Your task to perform on an android device: Open Youtube and go to "Your channel" Image 0: 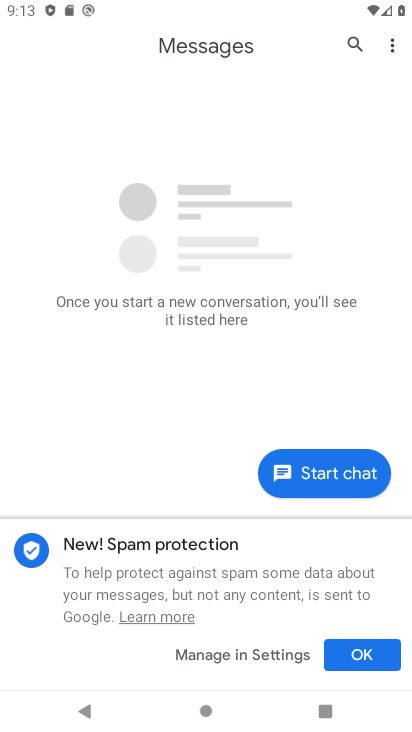
Step 0: press home button
Your task to perform on an android device: Open Youtube and go to "Your channel" Image 1: 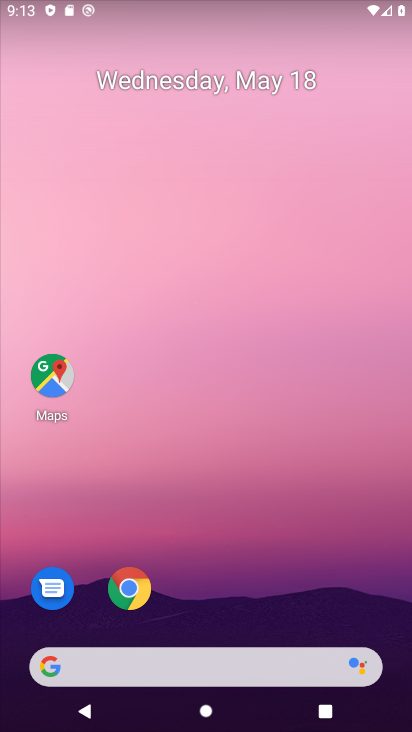
Step 1: drag from (230, 694) to (375, 287)
Your task to perform on an android device: Open Youtube and go to "Your channel" Image 2: 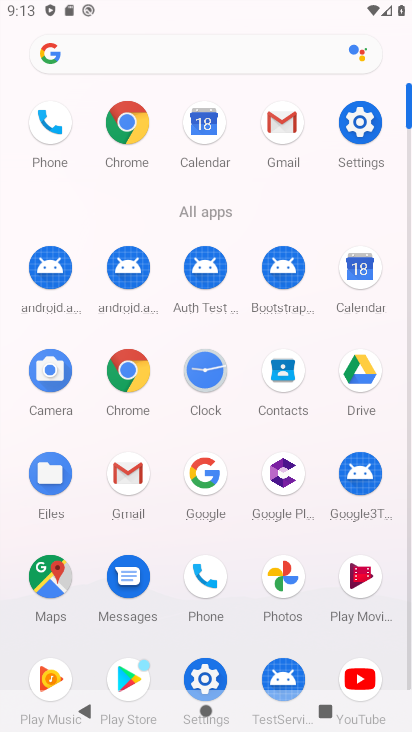
Step 2: click (351, 676)
Your task to perform on an android device: Open Youtube and go to "Your channel" Image 3: 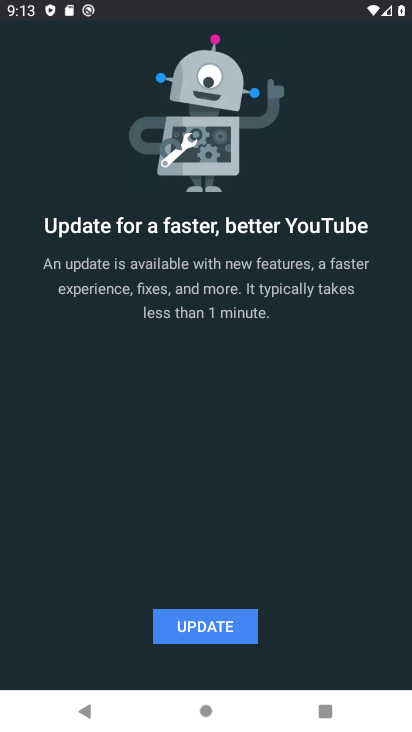
Step 3: click (201, 635)
Your task to perform on an android device: Open Youtube and go to "Your channel" Image 4: 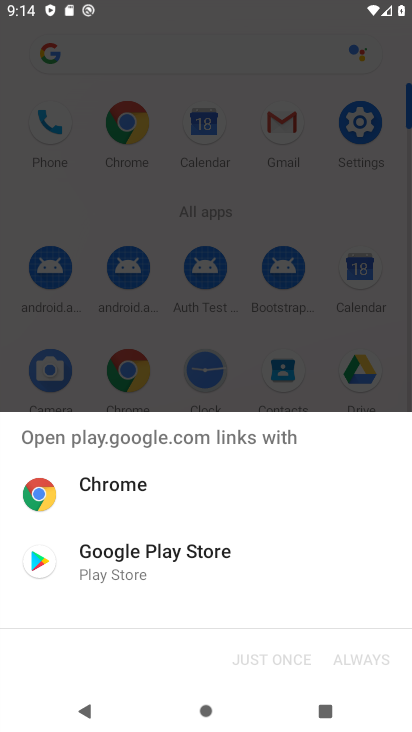
Step 4: click (109, 565)
Your task to perform on an android device: Open Youtube and go to "Your channel" Image 5: 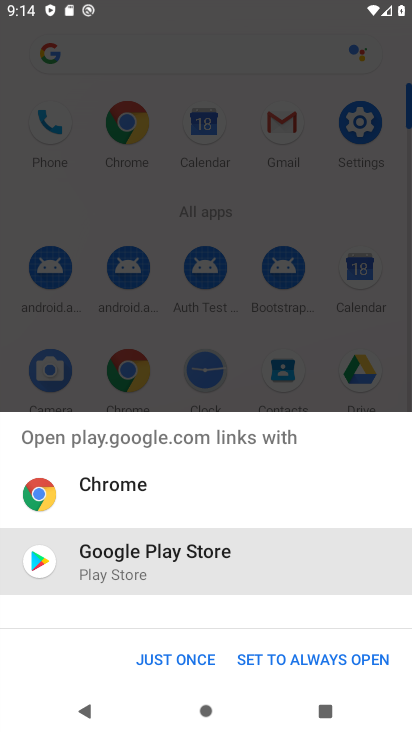
Step 5: click (176, 673)
Your task to perform on an android device: Open Youtube and go to "Your channel" Image 6: 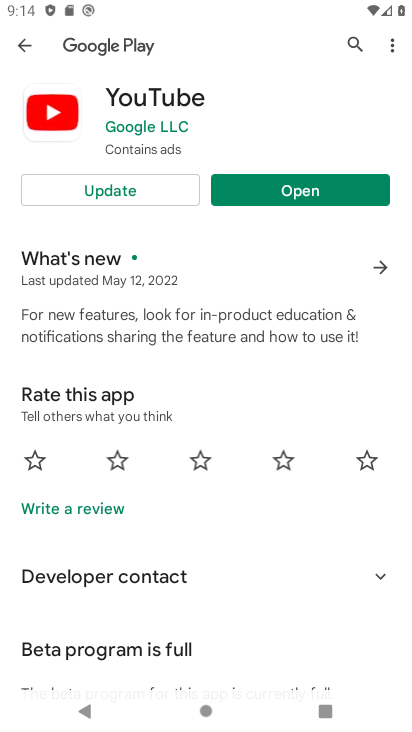
Step 6: click (102, 184)
Your task to perform on an android device: Open Youtube and go to "Your channel" Image 7: 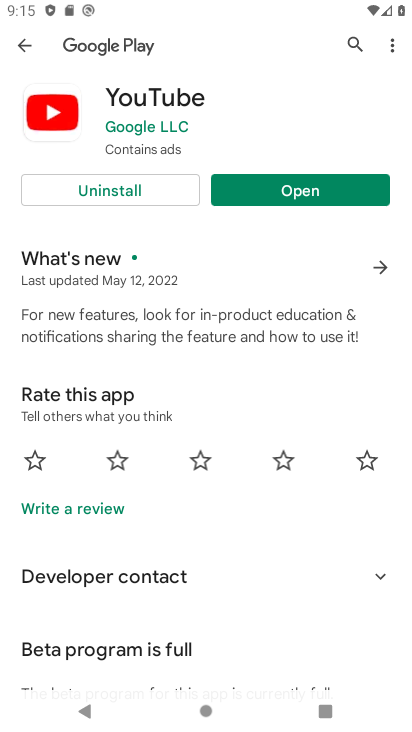
Step 7: click (264, 189)
Your task to perform on an android device: Open Youtube and go to "Your channel" Image 8: 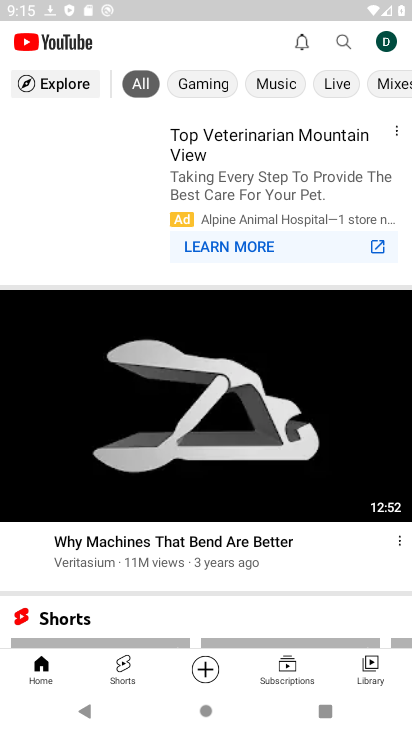
Step 8: click (386, 49)
Your task to perform on an android device: Open Youtube and go to "Your channel" Image 9: 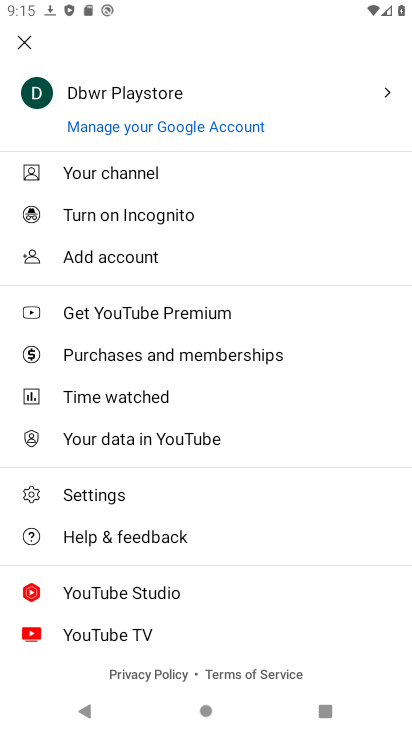
Step 9: click (152, 178)
Your task to perform on an android device: Open Youtube and go to "Your channel" Image 10: 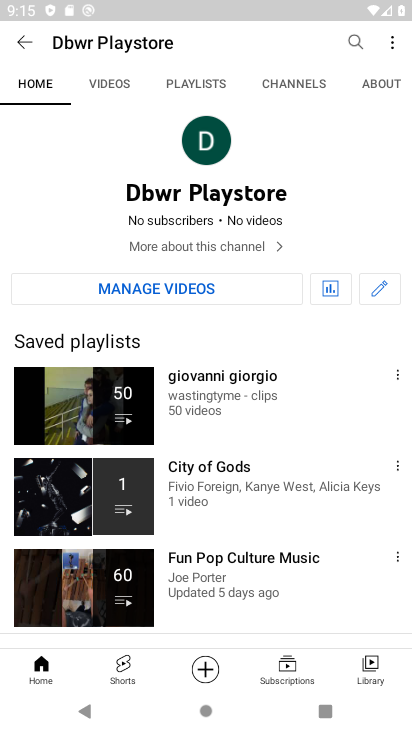
Step 10: task complete